Your task to perform on an android device: Go to Android settings Image 0: 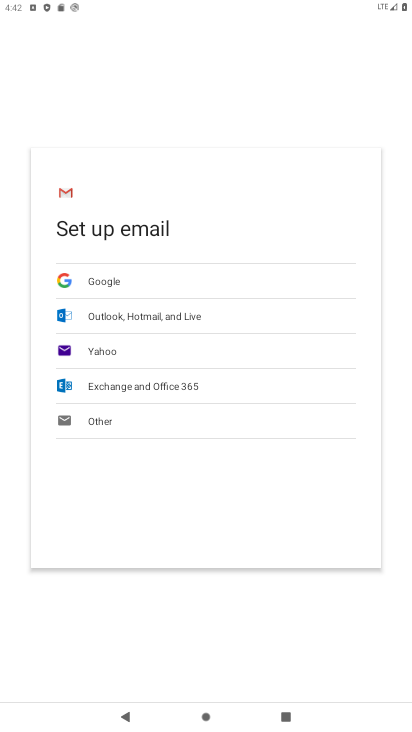
Step 0: press home button
Your task to perform on an android device: Go to Android settings Image 1: 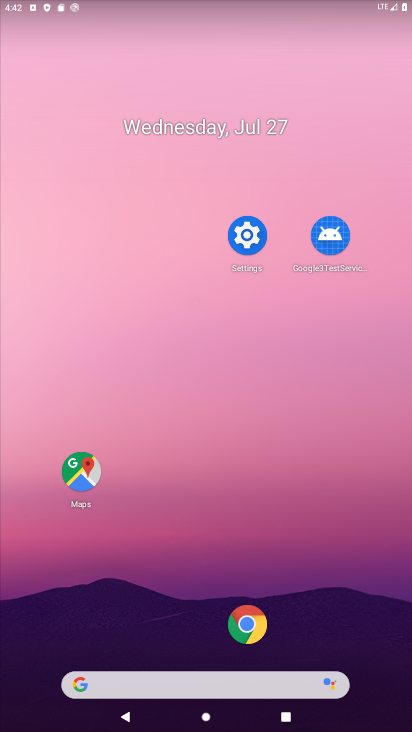
Step 1: click (244, 237)
Your task to perform on an android device: Go to Android settings Image 2: 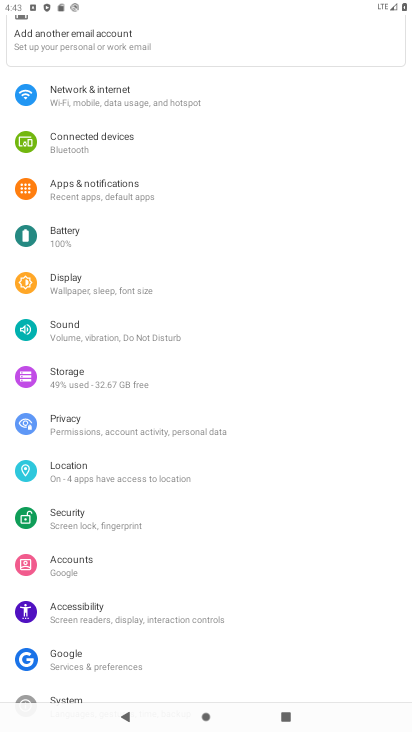
Step 2: task complete